Your task to perform on an android device: uninstall "Google Translate" Image 0: 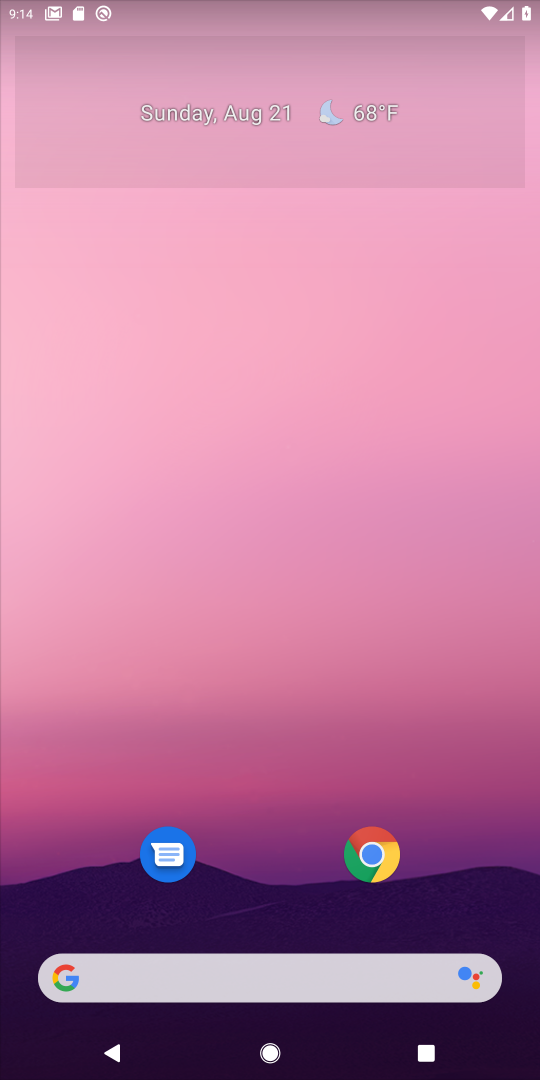
Step 0: drag from (292, 928) to (385, 11)
Your task to perform on an android device: uninstall "Google Translate" Image 1: 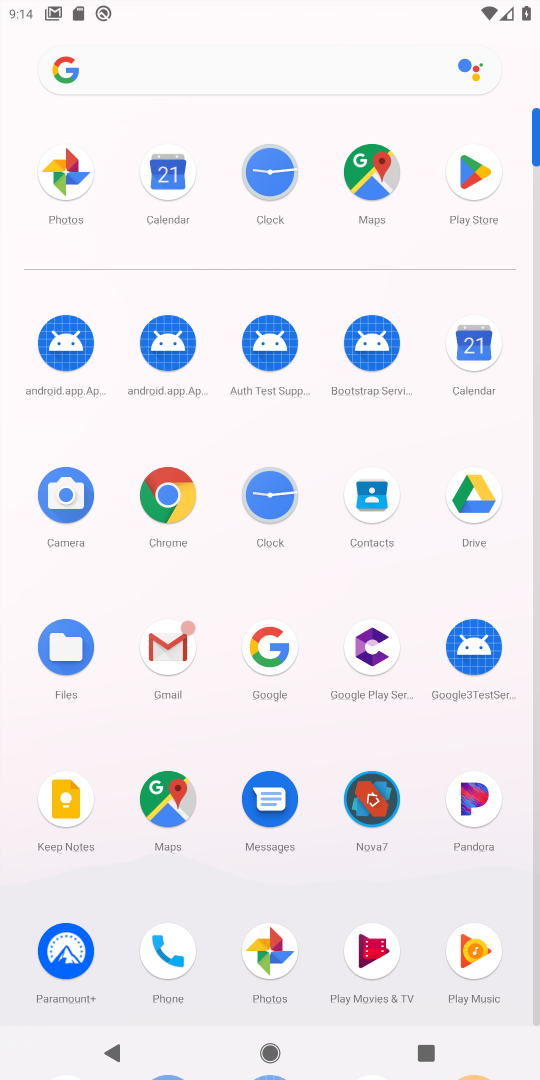
Step 1: click (465, 179)
Your task to perform on an android device: uninstall "Google Translate" Image 2: 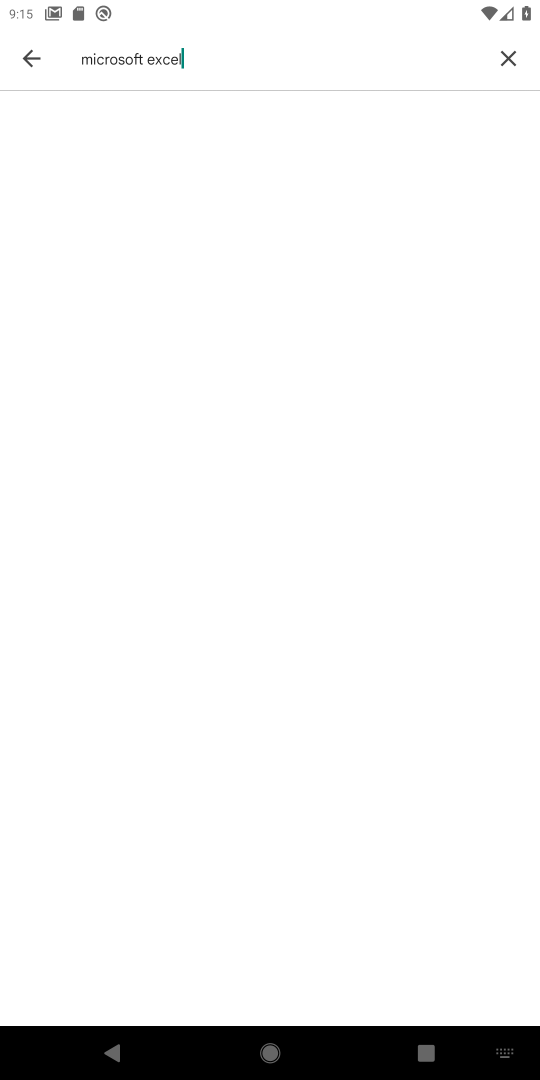
Step 2: task complete